Your task to perform on an android device: What is the capital of Canada? Image 0: 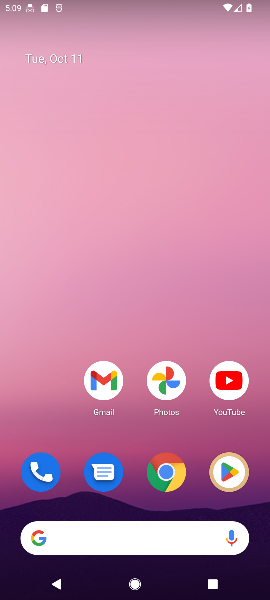
Step 0: click (172, 472)
Your task to perform on an android device: What is the capital of Canada? Image 1: 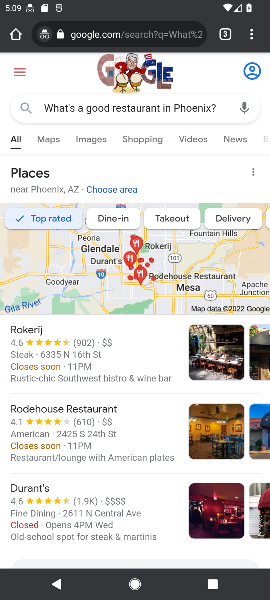
Step 1: click (107, 27)
Your task to perform on an android device: What is the capital of Canada? Image 2: 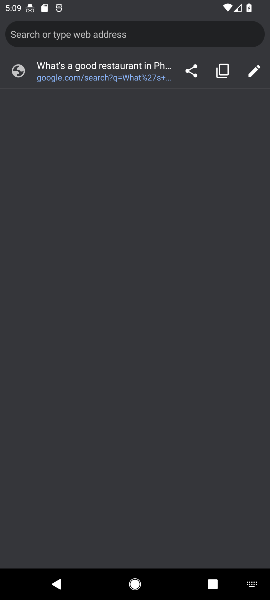
Step 2: type "What is the capital of Canada?"
Your task to perform on an android device: What is the capital of Canada? Image 3: 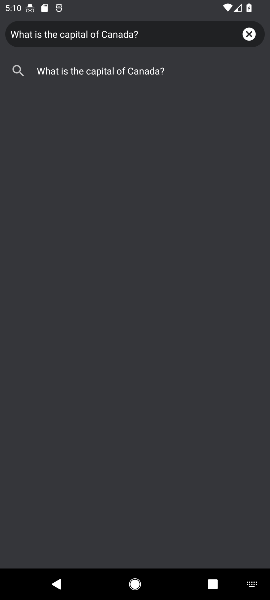
Step 3: click (185, 77)
Your task to perform on an android device: What is the capital of Canada? Image 4: 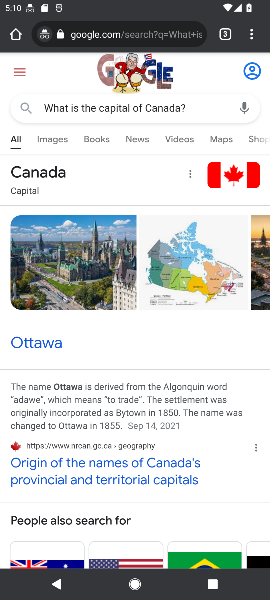
Step 4: task complete